Your task to perform on an android device: toggle improve location accuracy Image 0: 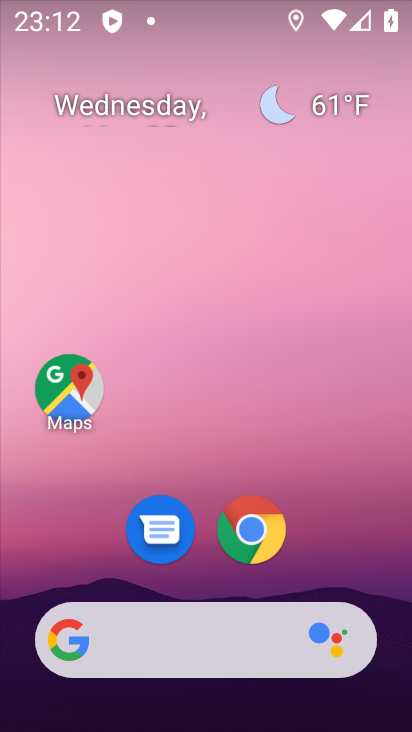
Step 0: drag from (374, 551) to (386, 241)
Your task to perform on an android device: toggle improve location accuracy Image 1: 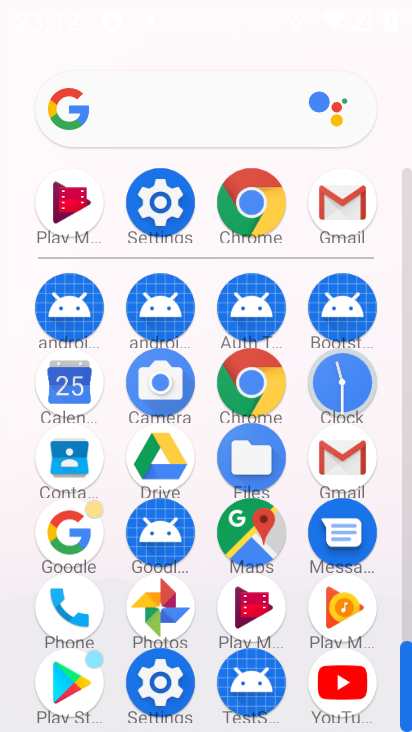
Step 1: click (167, 217)
Your task to perform on an android device: toggle improve location accuracy Image 2: 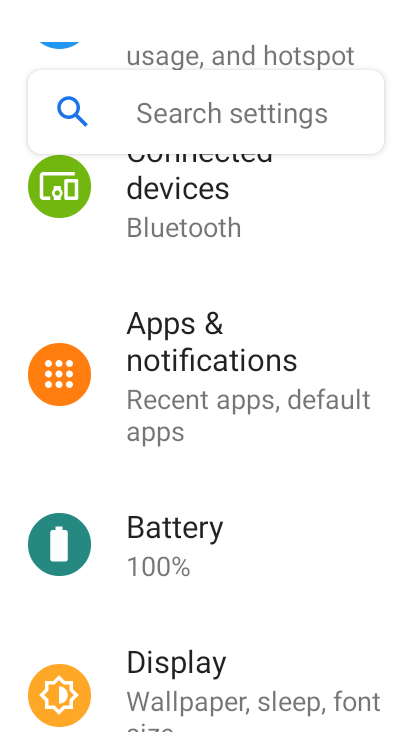
Step 2: drag from (361, 260) to (341, 343)
Your task to perform on an android device: toggle improve location accuracy Image 3: 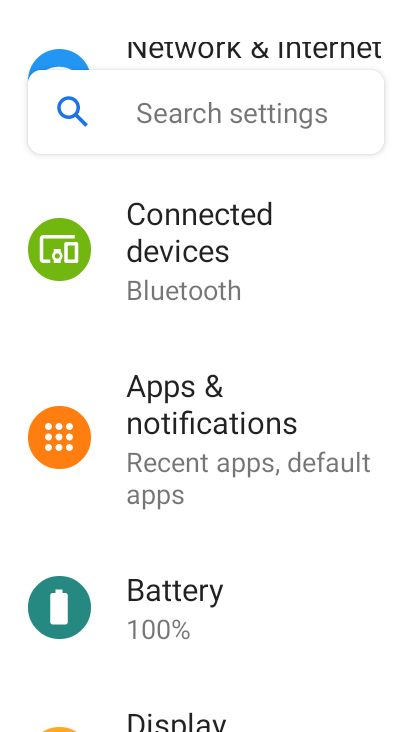
Step 3: drag from (348, 275) to (355, 348)
Your task to perform on an android device: toggle improve location accuracy Image 4: 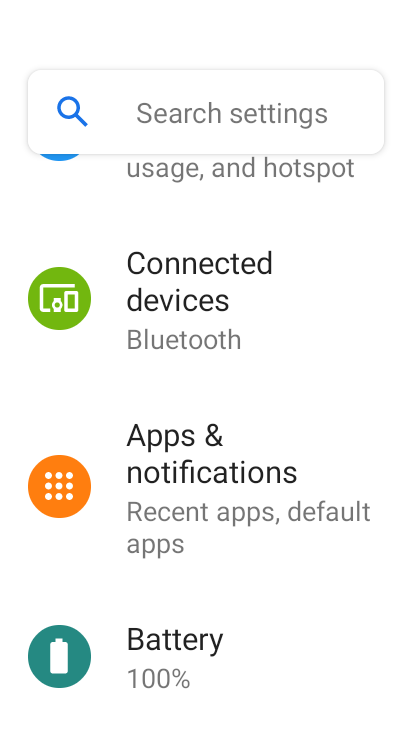
Step 4: drag from (357, 255) to (366, 346)
Your task to perform on an android device: toggle improve location accuracy Image 5: 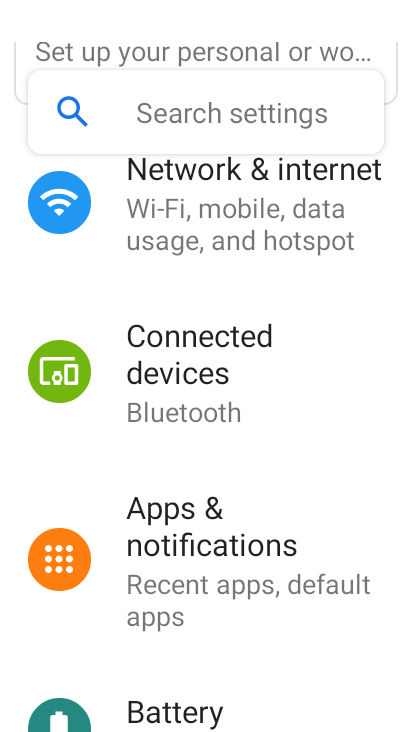
Step 5: drag from (364, 227) to (359, 324)
Your task to perform on an android device: toggle improve location accuracy Image 6: 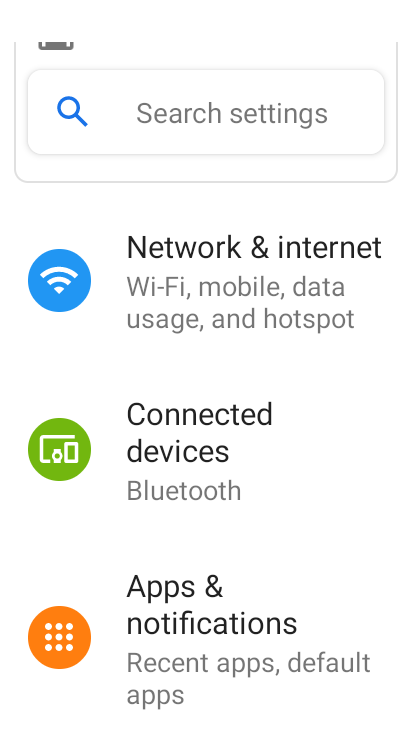
Step 6: drag from (351, 437) to (360, 340)
Your task to perform on an android device: toggle improve location accuracy Image 7: 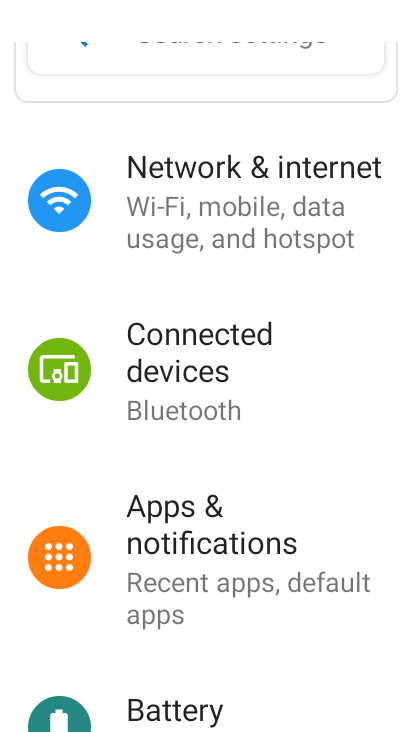
Step 7: drag from (338, 367) to (324, 332)
Your task to perform on an android device: toggle improve location accuracy Image 8: 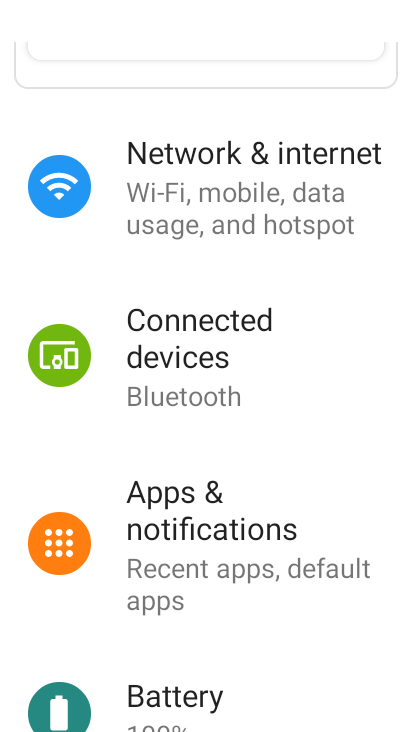
Step 8: drag from (340, 410) to (343, 327)
Your task to perform on an android device: toggle improve location accuracy Image 9: 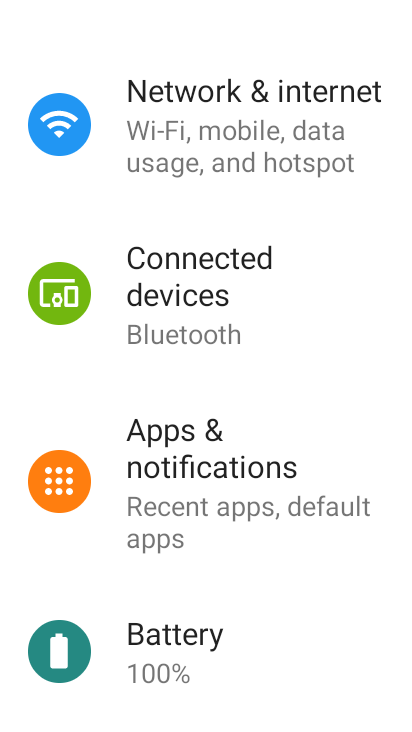
Step 9: drag from (349, 439) to (339, 352)
Your task to perform on an android device: toggle improve location accuracy Image 10: 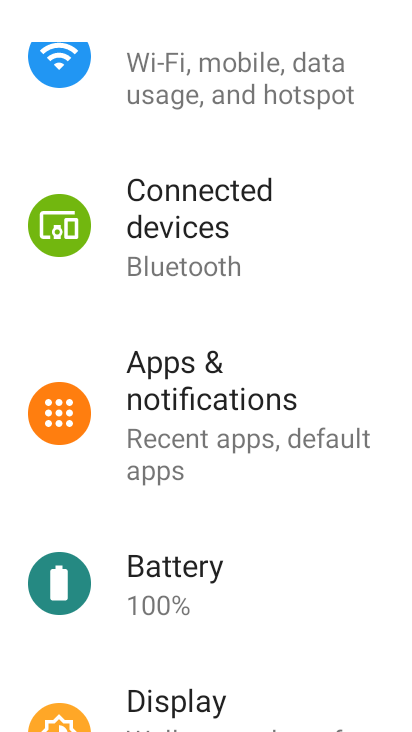
Step 10: drag from (354, 495) to (357, 395)
Your task to perform on an android device: toggle improve location accuracy Image 11: 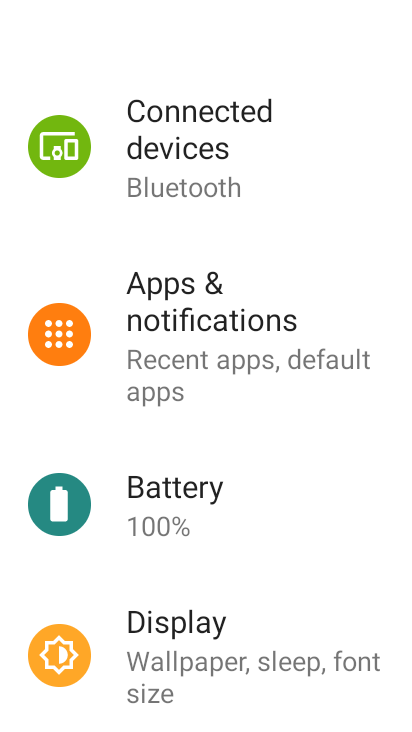
Step 11: drag from (338, 472) to (329, 398)
Your task to perform on an android device: toggle improve location accuracy Image 12: 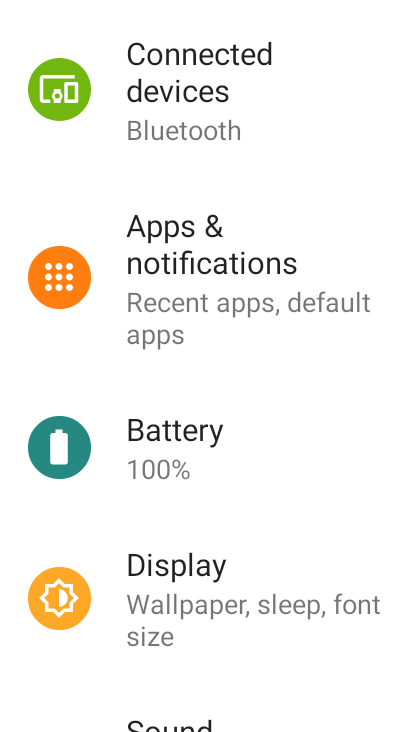
Step 12: drag from (327, 514) to (332, 404)
Your task to perform on an android device: toggle improve location accuracy Image 13: 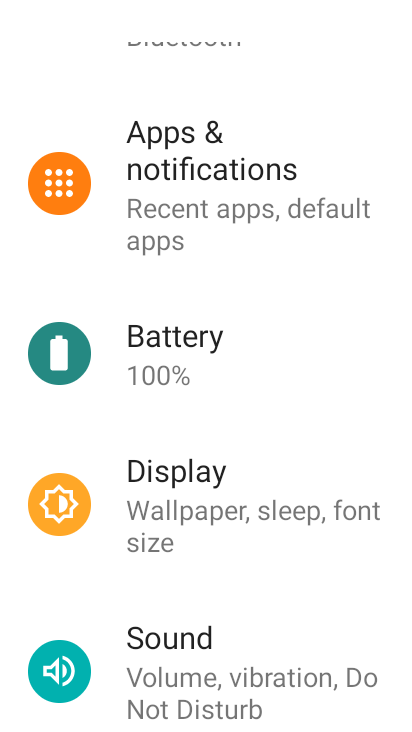
Step 13: drag from (324, 523) to (340, 433)
Your task to perform on an android device: toggle improve location accuracy Image 14: 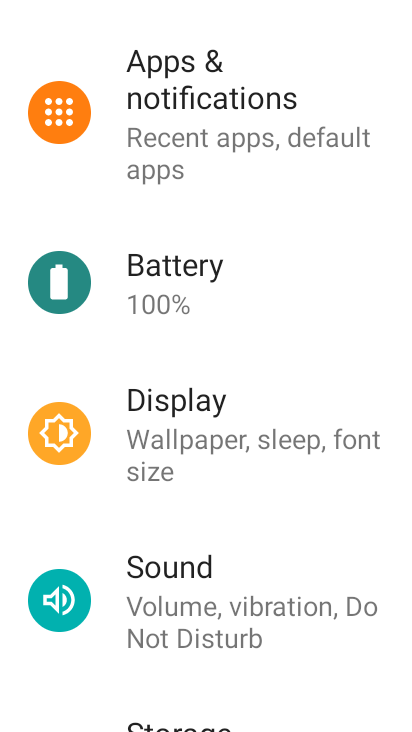
Step 14: drag from (323, 547) to (314, 456)
Your task to perform on an android device: toggle improve location accuracy Image 15: 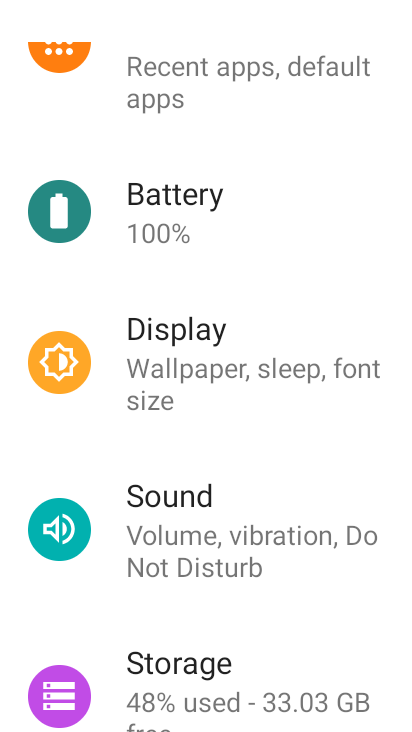
Step 15: drag from (303, 597) to (301, 508)
Your task to perform on an android device: toggle improve location accuracy Image 16: 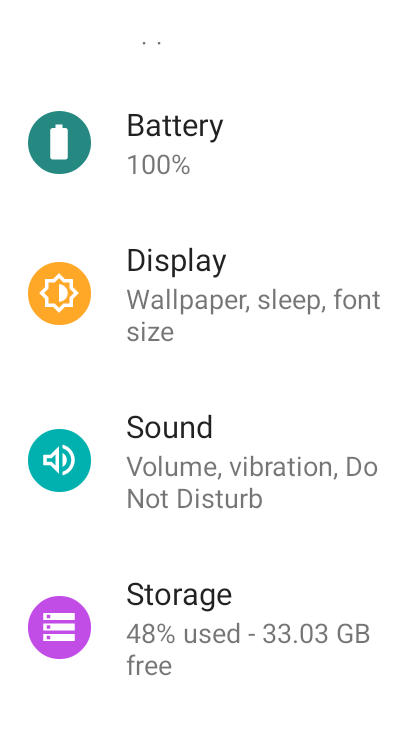
Step 16: drag from (289, 657) to (271, 562)
Your task to perform on an android device: toggle improve location accuracy Image 17: 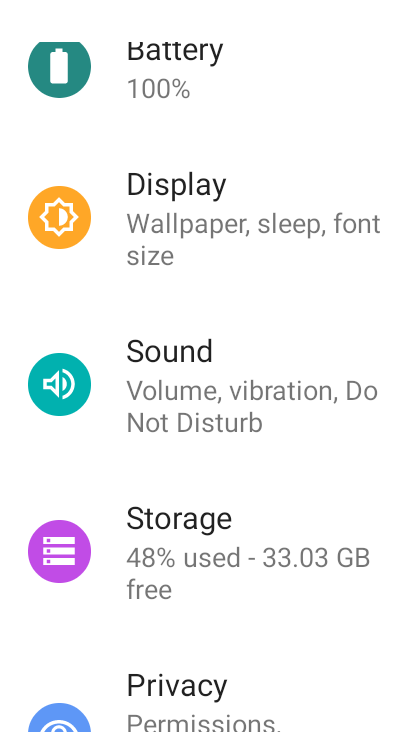
Step 17: drag from (287, 656) to (317, 558)
Your task to perform on an android device: toggle improve location accuracy Image 18: 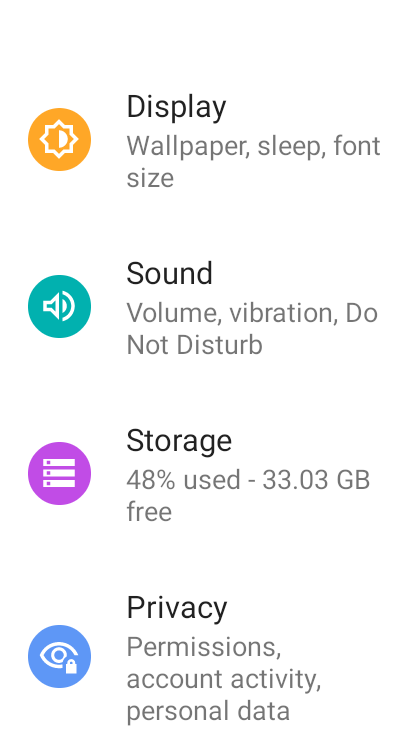
Step 18: drag from (333, 668) to (330, 570)
Your task to perform on an android device: toggle improve location accuracy Image 19: 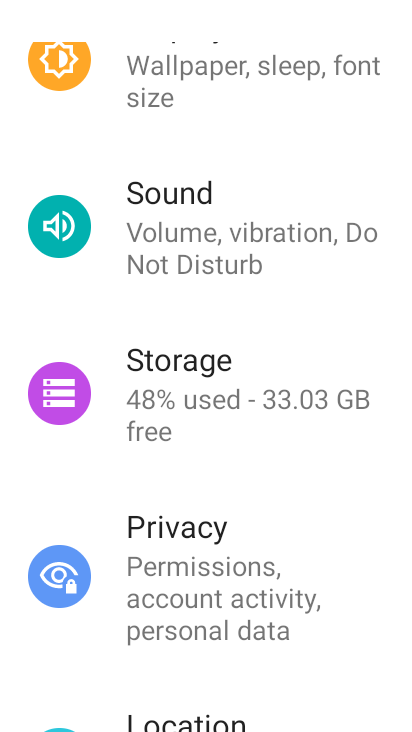
Step 19: drag from (331, 649) to (339, 569)
Your task to perform on an android device: toggle improve location accuracy Image 20: 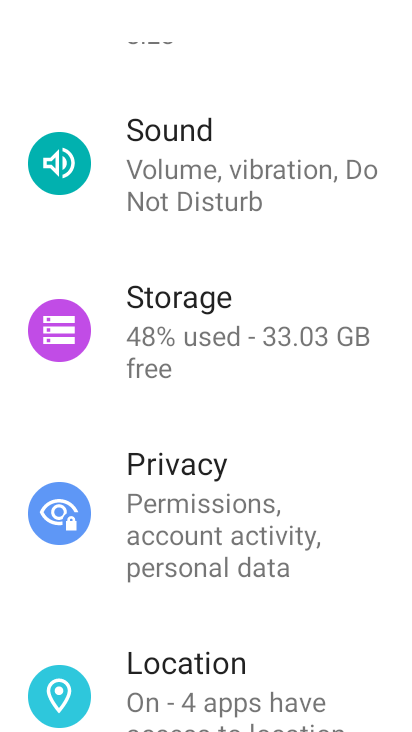
Step 20: click (330, 654)
Your task to perform on an android device: toggle improve location accuracy Image 21: 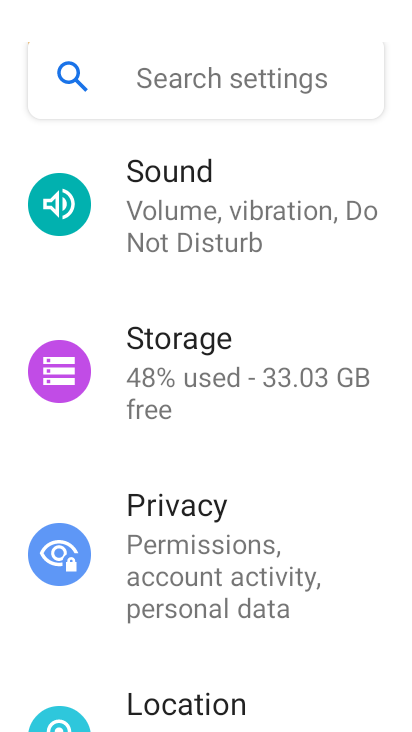
Step 21: drag from (328, 661) to (336, 525)
Your task to perform on an android device: toggle improve location accuracy Image 22: 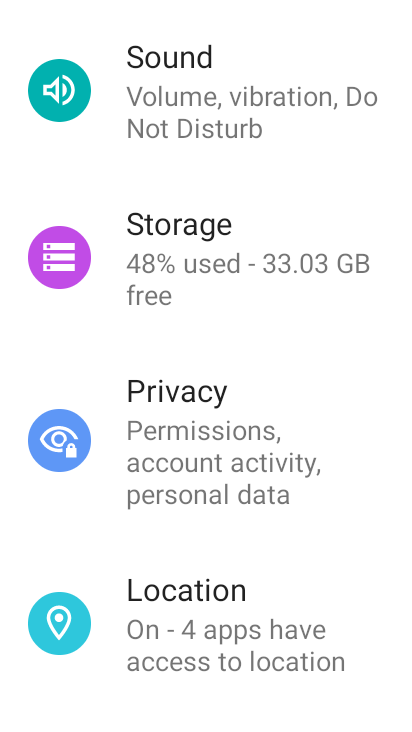
Step 22: click (196, 603)
Your task to perform on an android device: toggle improve location accuracy Image 23: 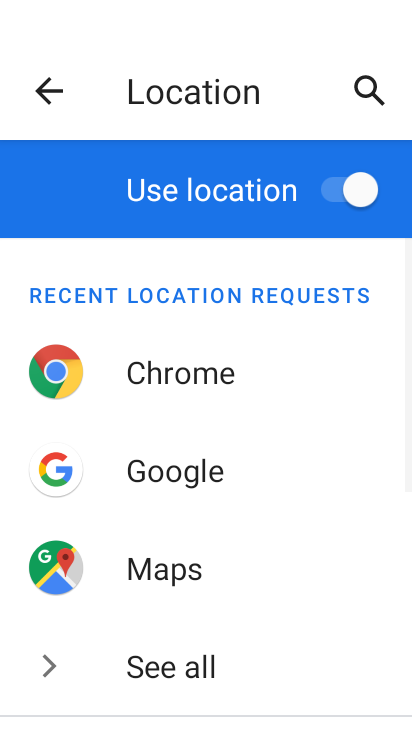
Step 23: drag from (264, 640) to (299, 488)
Your task to perform on an android device: toggle improve location accuracy Image 24: 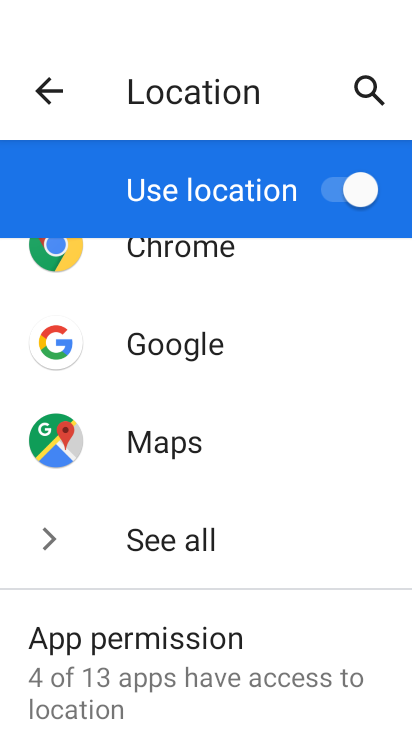
Step 24: drag from (304, 628) to (321, 422)
Your task to perform on an android device: toggle improve location accuracy Image 25: 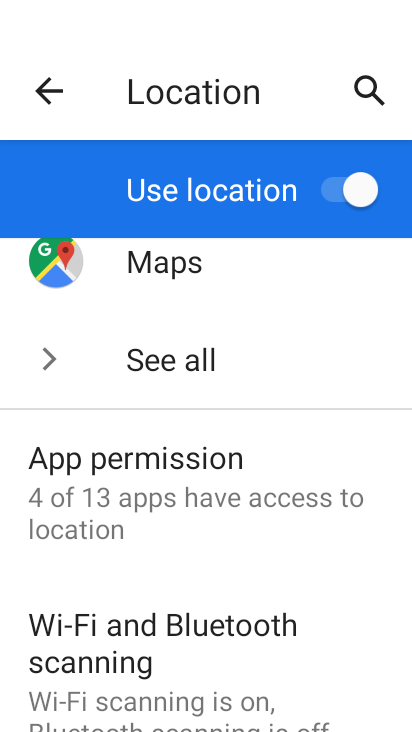
Step 25: drag from (314, 638) to (307, 459)
Your task to perform on an android device: toggle improve location accuracy Image 26: 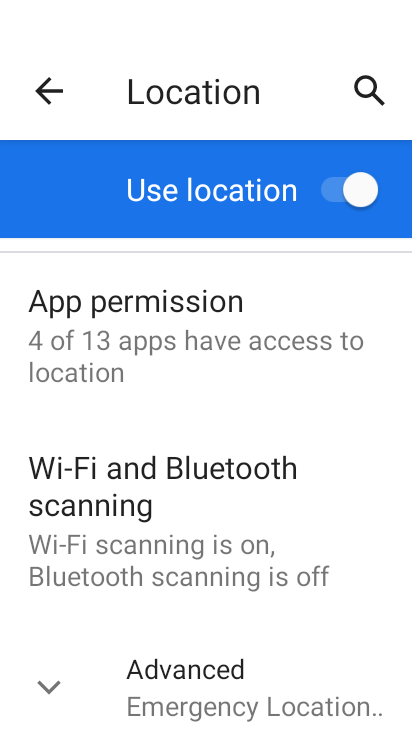
Step 26: click (303, 691)
Your task to perform on an android device: toggle improve location accuracy Image 27: 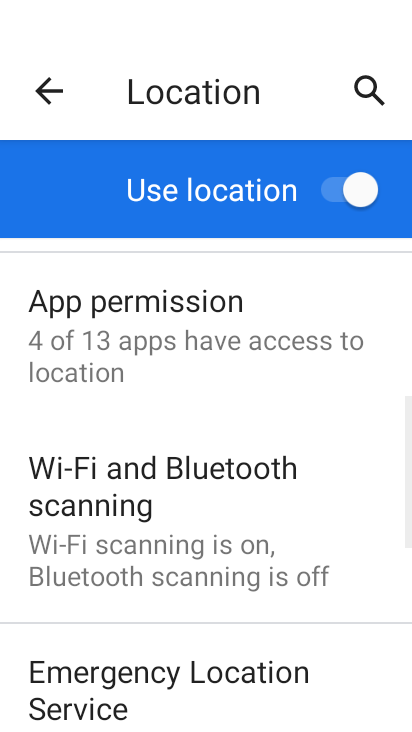
Step 27: drag from (299, 697) to (297, 547)
Your task to perform on an android device: toggle improve location accuracy Image 28: 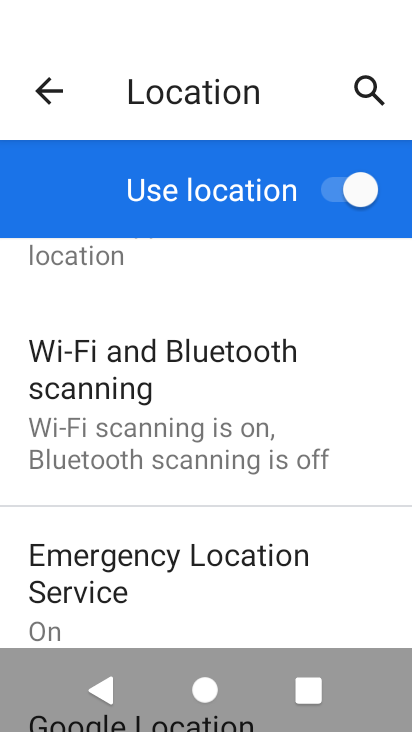
Step 28: drag from (305, 611) to (314, 453)
Your task to perform on an android device: toggle improve location accuracy Image 29: 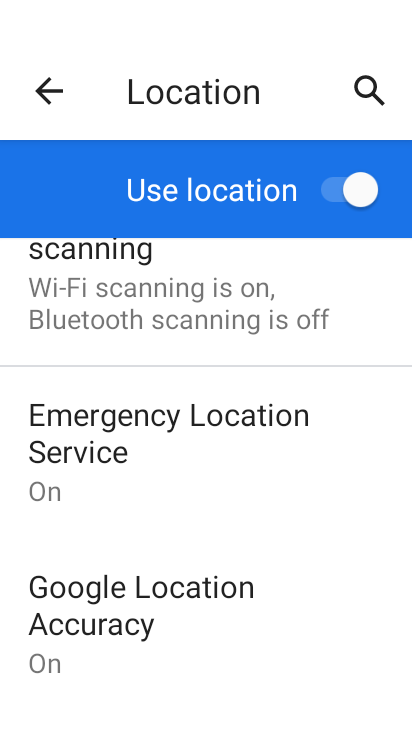
Step 29: click (168, 622)
Your task to perform on an android device: toggle improve location accuracy Image 30: 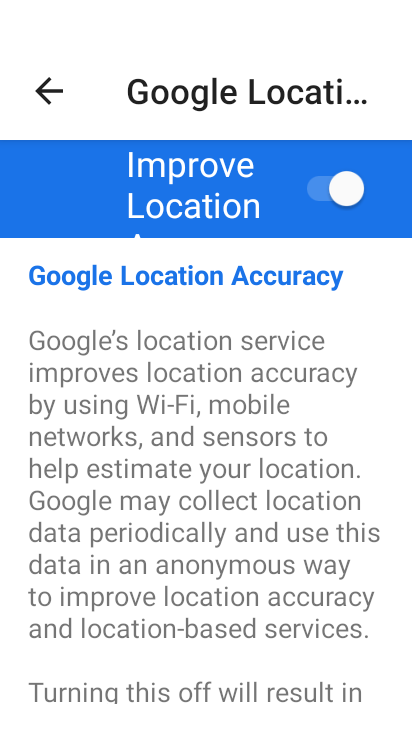
Step 30: click (343, 187)
Your task to perform on an android device: toggle improve location accuracy Image 31: 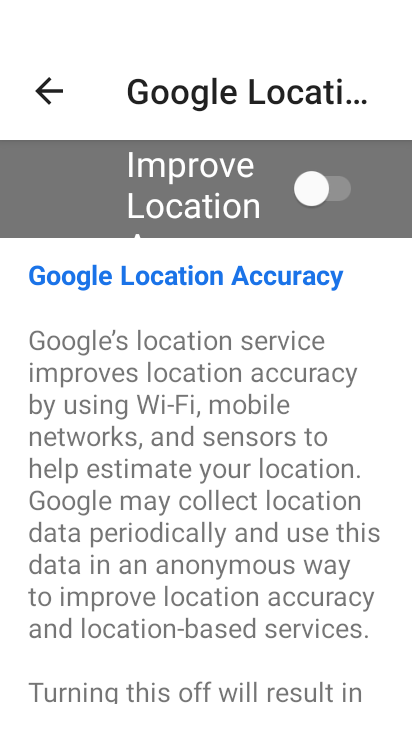
Step 31: task complete